Your task to perform on an android device: Open settings Image 0: 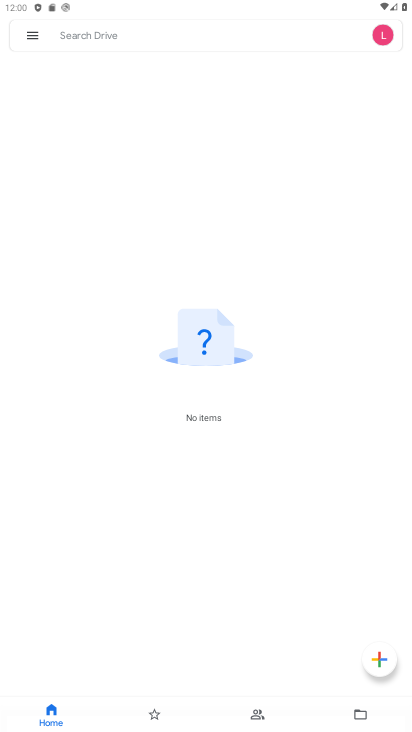
Step 0: press home button
Your task to perform on an android device: Open settings Image 1: 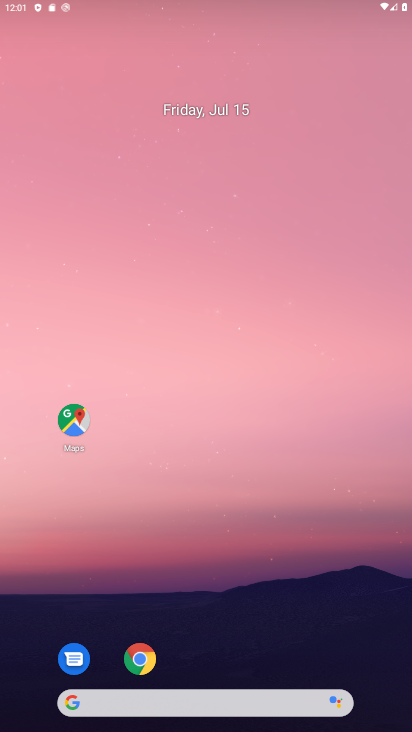
Step 1: drag from (218, 652) to (206, 149)
Your task to perform on an android device: Open settings Image 2: 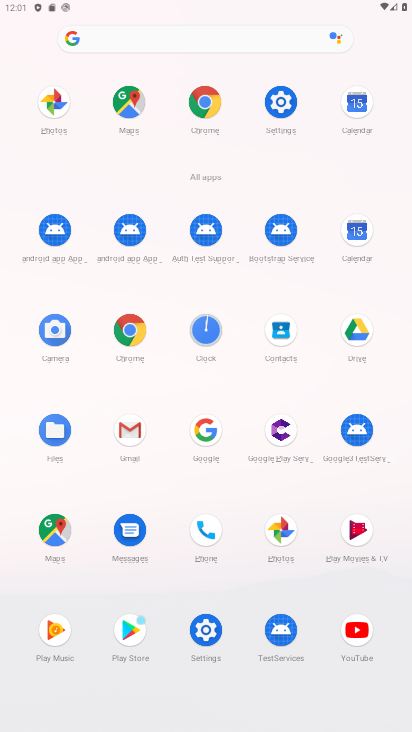
Step 2: click (265, 109)
Your task to perform on an android device: Open settings Image 3: 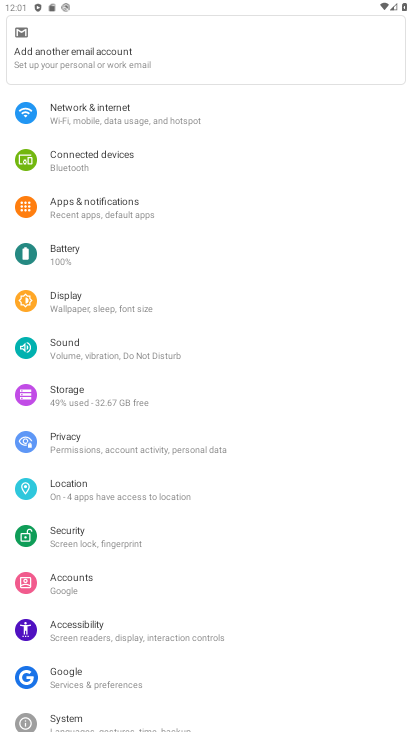
Step 3: task complete